Your task to perform on an android device: Show me productivity apps on the Play Store Image 0: 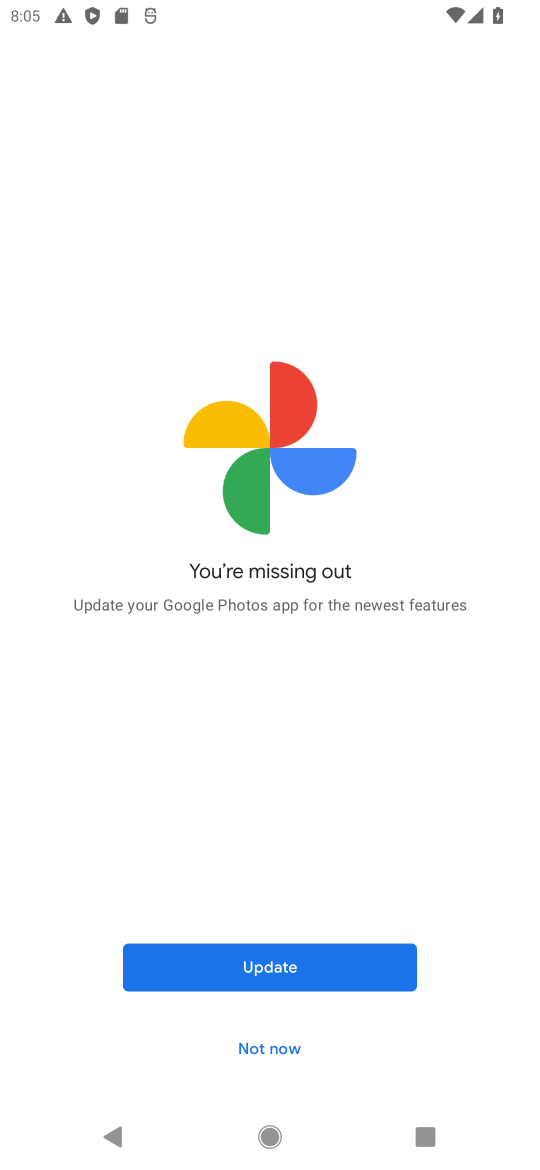
Step 0: press home button
Your task to perform on an android device: Show me productivity apps on the Play Store Image 1: 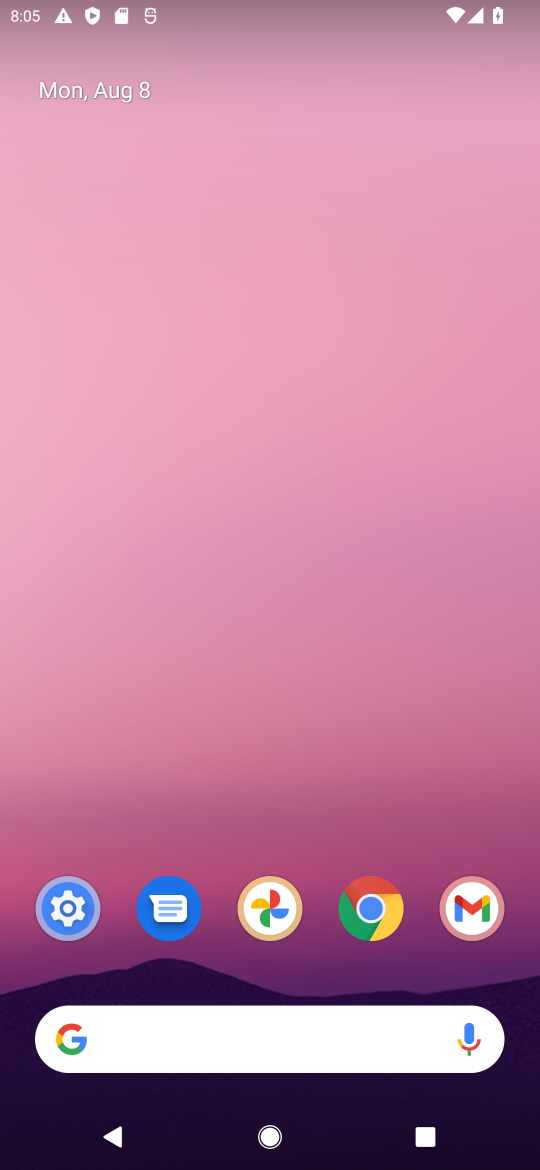
Step 1: drag from (321, 828) to (275, 148)
Your task to perform on an android device: Show me productivity apps on the Play Store Image 2: 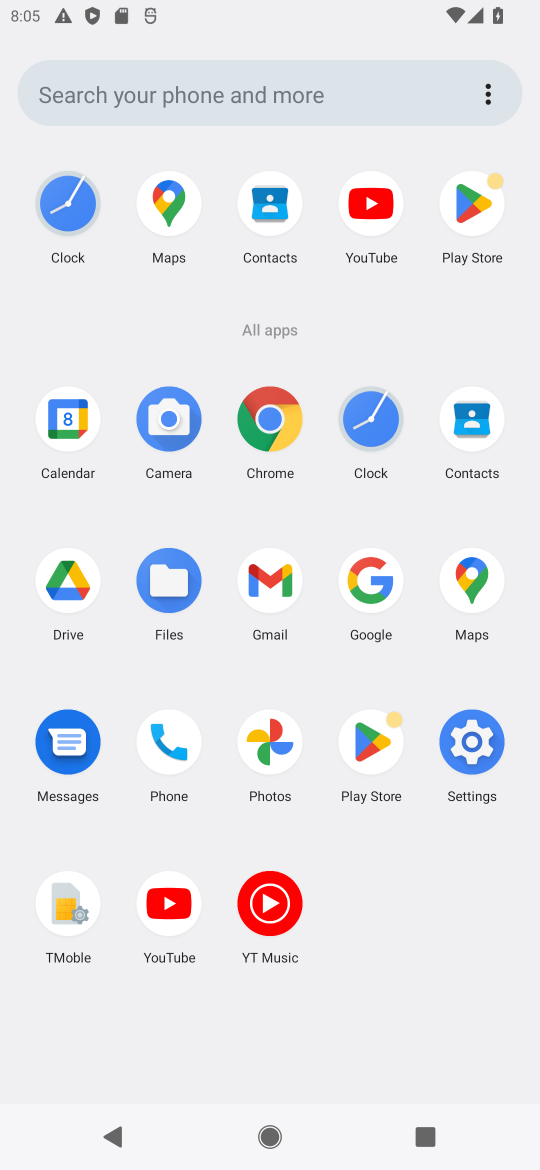
Step 2: click (373, 747)
Your task to perform on an android device: Show me productivity apps on the Play Store Image 3: 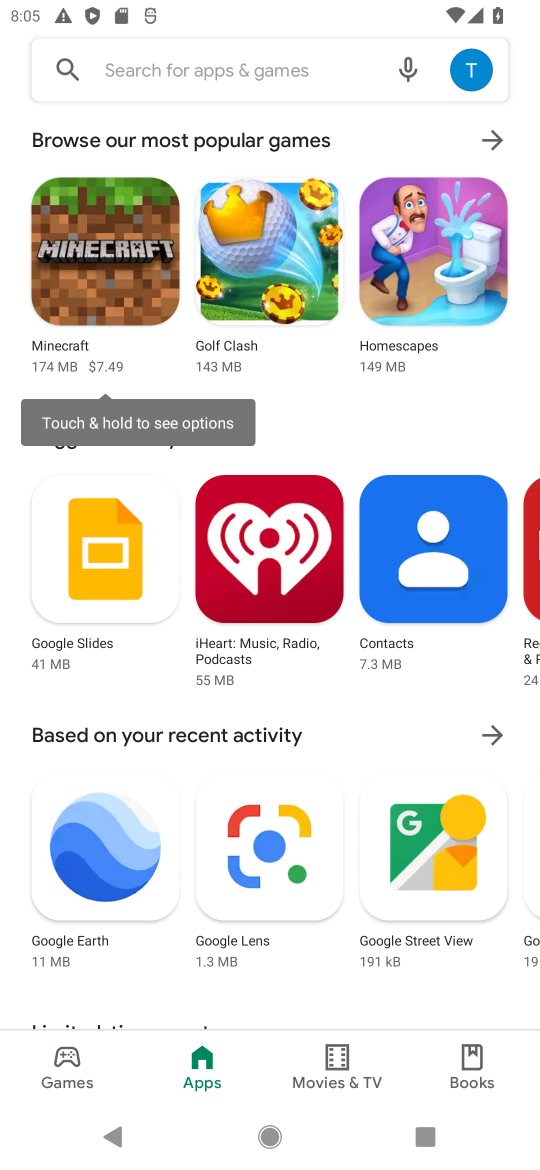
Step 3: drag from (375, 125) to (357, 1059)
Your task to perform on an android device: Show me productivity apps on the Play Store Image 4: 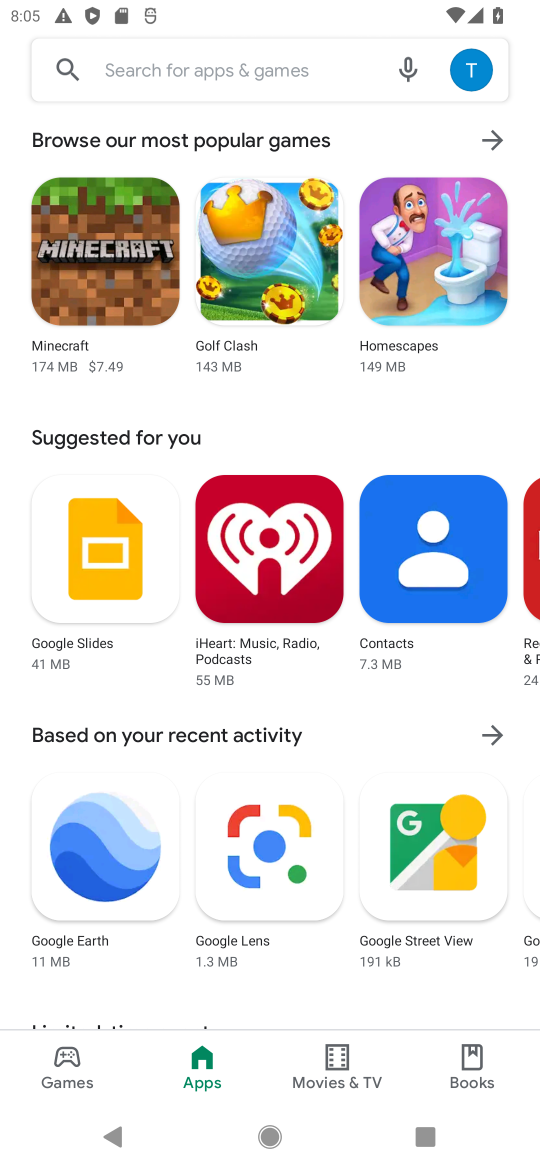
Step 4: drag from (242, 822) to (307, 144)
Your task to perform on an android device: Show me productivity apps on the Play Store Image 5: 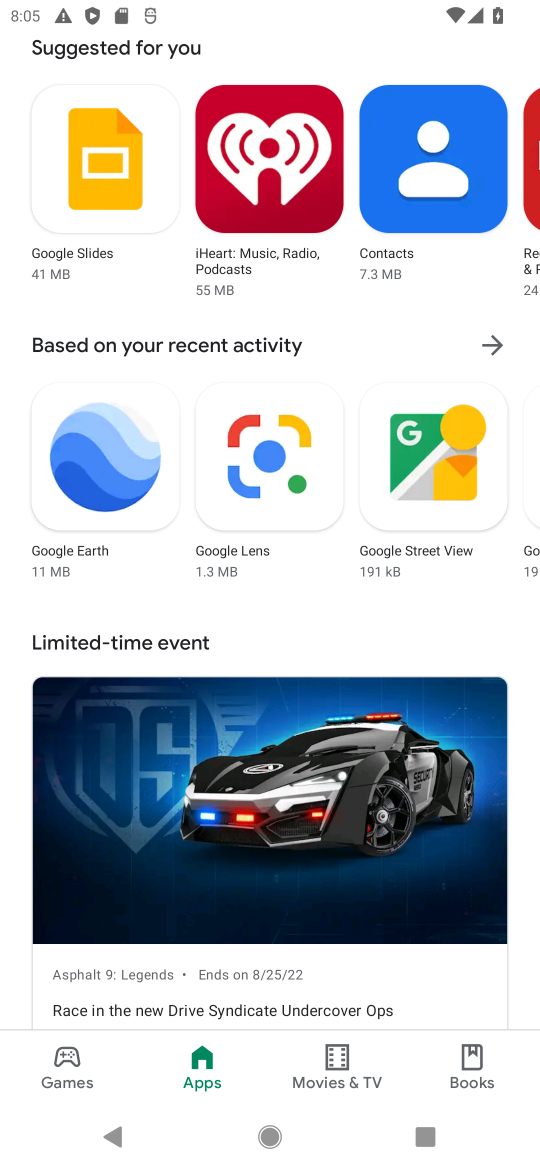
Step 5: drag from (319, 678) to (291, 222)
Your task to perform on an android device: Show me productivity apps on the Play Store Image 6: 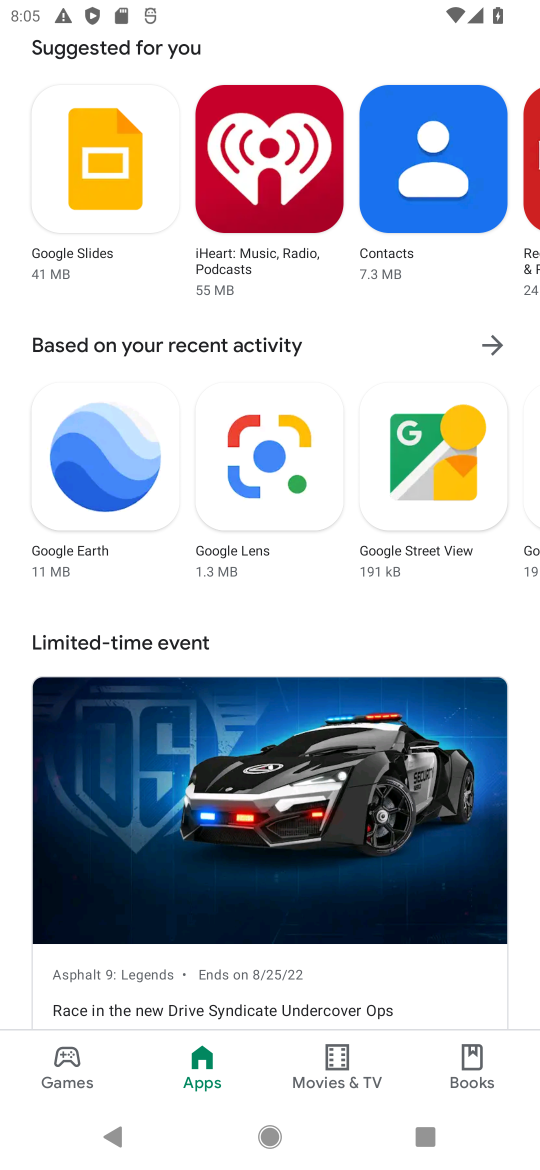
Step 6: drag from (222, 993) to (231, 456)
Your task to perform on an android device: Show me productivity apps on the Play Store Image 7: 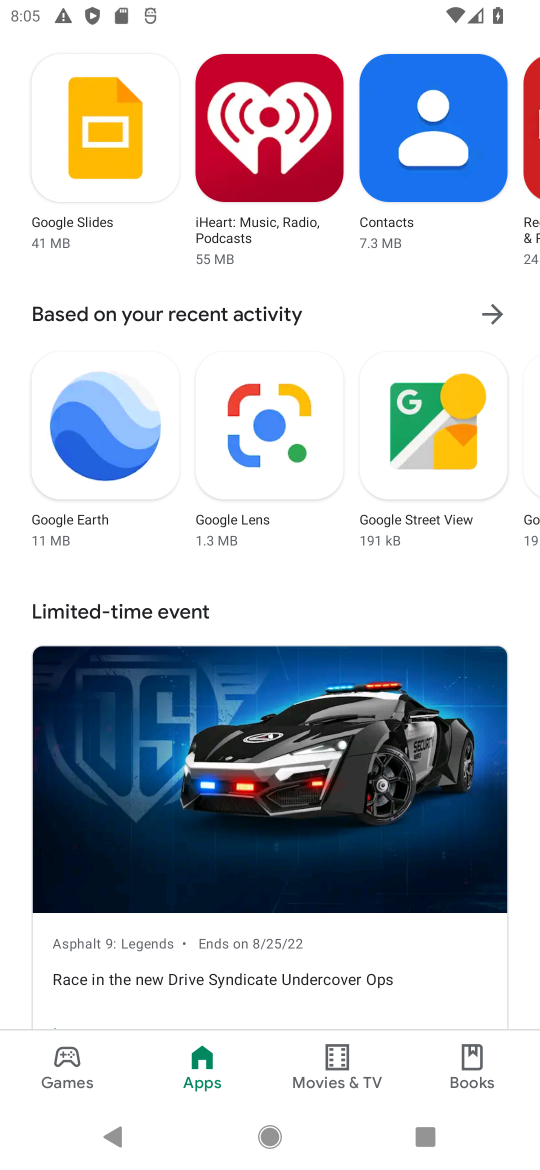
Step 7: drag from (185, 93) to (151, 963)
Your task to perform on an android device: Show me productivity apps on the Play Store Image 8: 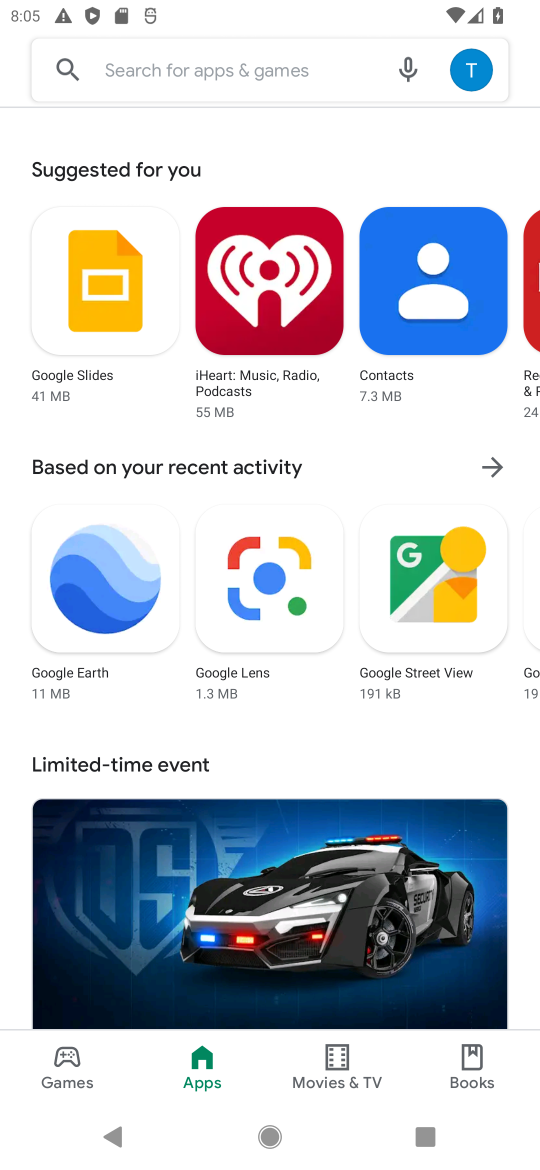
Step 8: drag from (361, 147) to (229, 1098)
Your task to perform on an android device: Show me productivity apps on the Play Store Image 9: 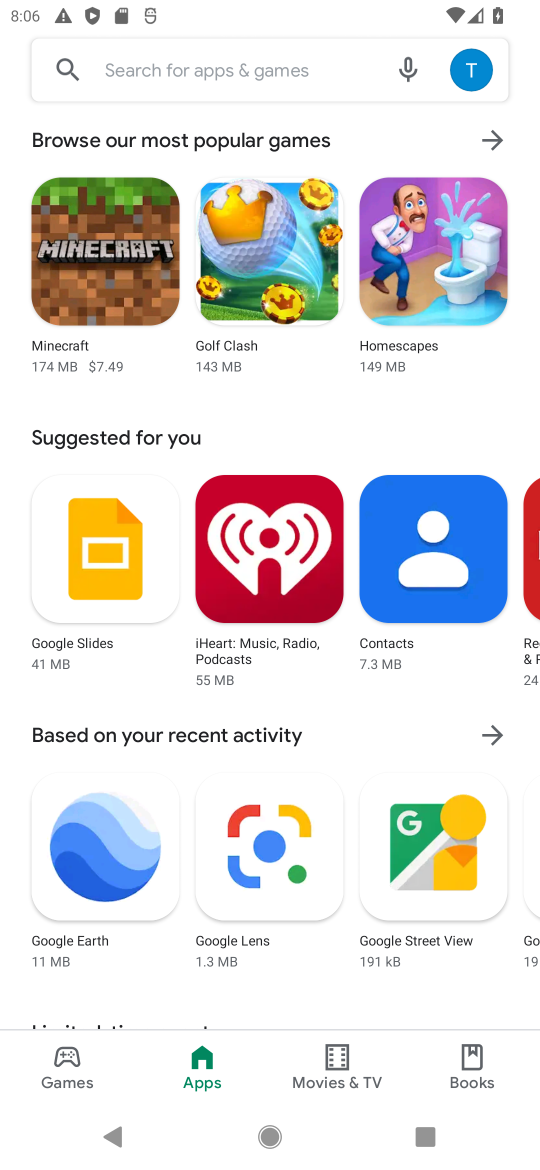
Step 9: drag from (255, 985) to (229, 171)
Your task to perform on an android device: Show me productivity apps on the Play Store Image 10: 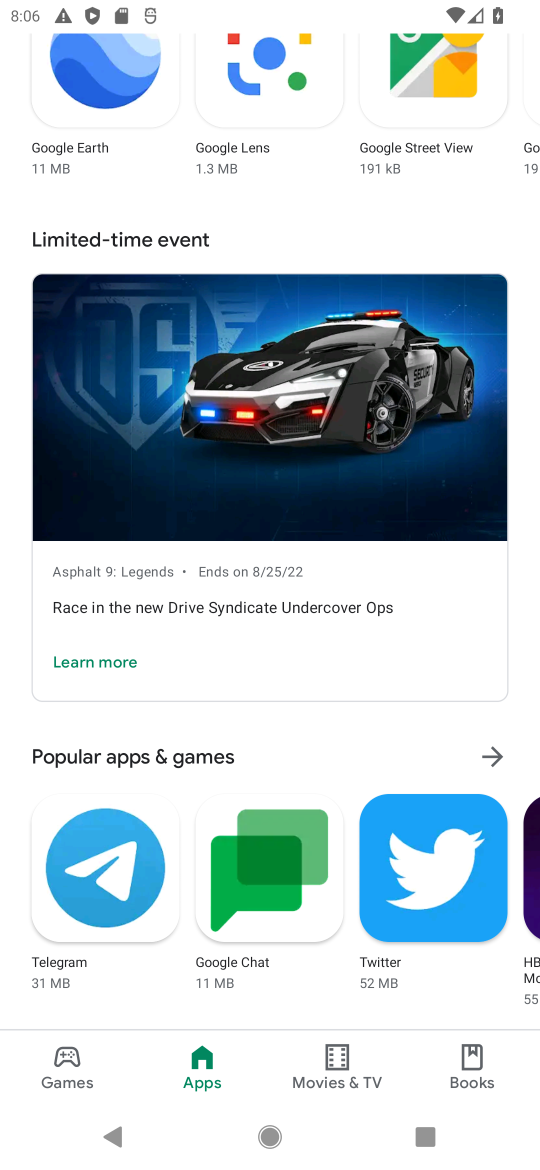
Step 10: drag from (169, 69) to (153, 1156)
Your task to perform on an android device: Show me productivity apps on the Play Store Image 11: 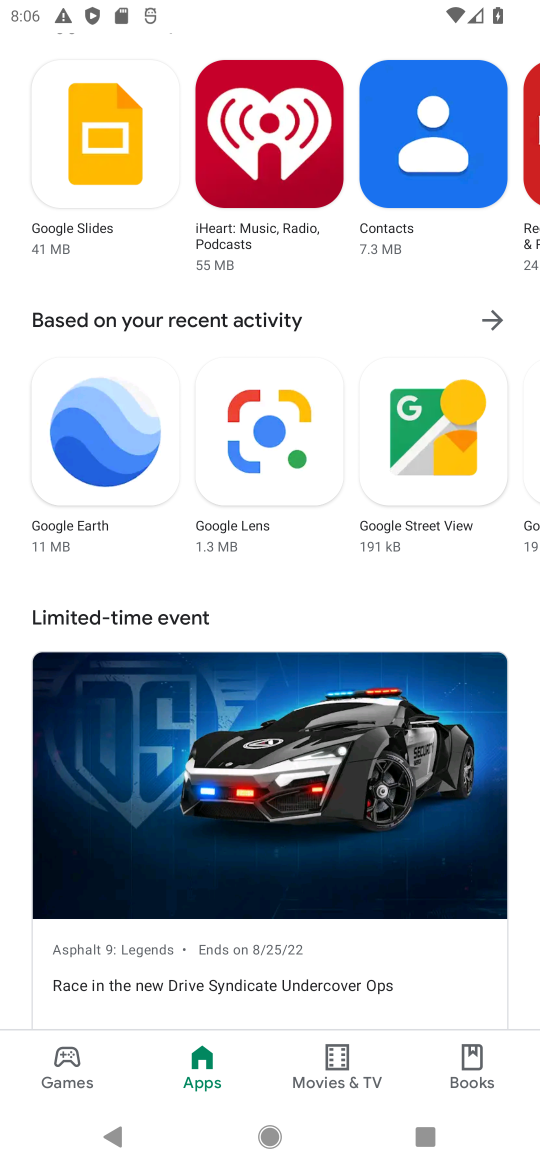
Step 11: drag from (407, 43) to (391, 1075)
Your task to perform on an android device: Show me productivity apps on the Play Store Image 12: 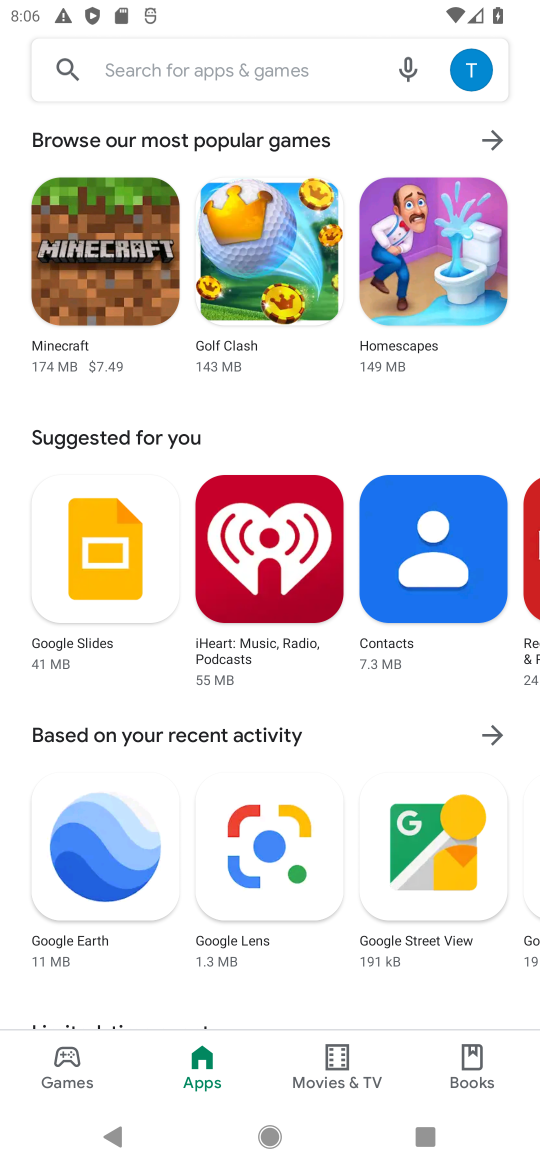
Step 12: drag from (153, 992) to (93, 56)
Your task to perform on an android device: Show me productivity apps on the Play Store Image 13: 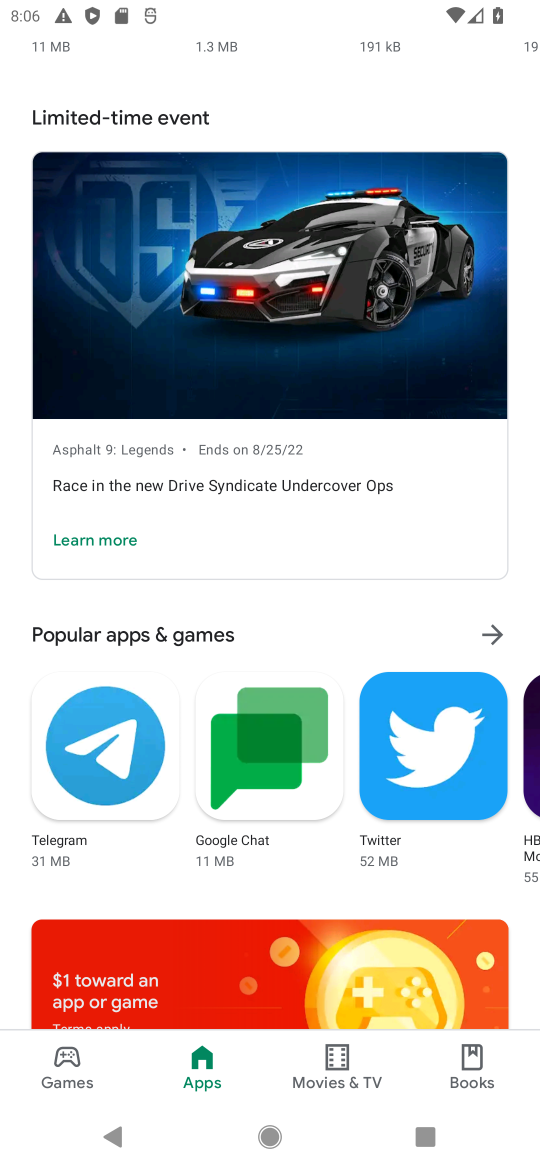
Step 13: drag from (129, 870) to (343, 6)
Your task to perform on an android device: Show me productivity apps on the Play Store Image 14: 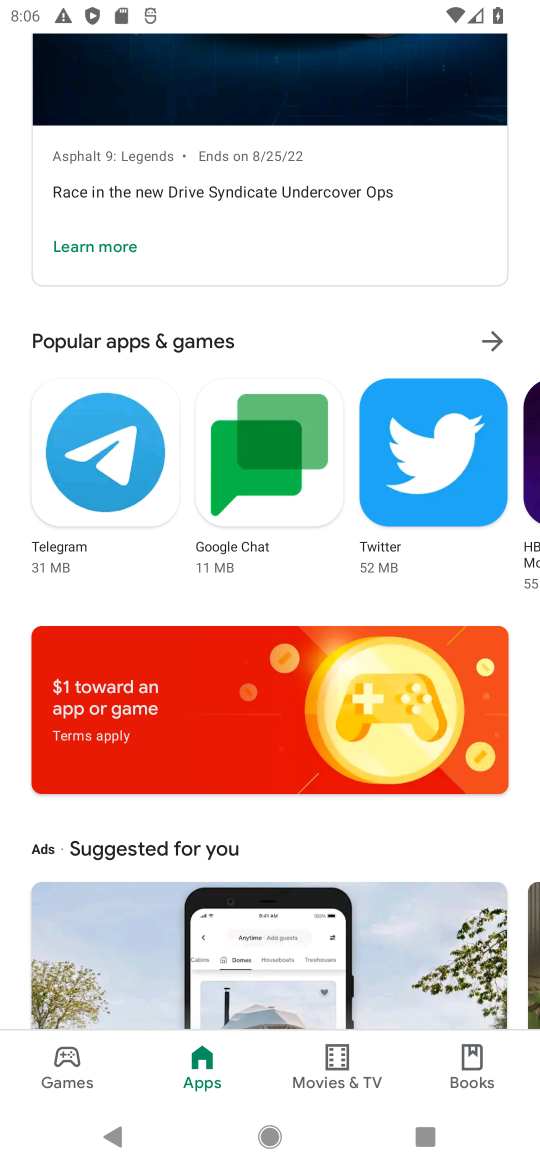
Step 14: drag from (186, 955) to (191, 255)
Your task to perform on an android device: Show me productivity apps on the Play Store Image 15: 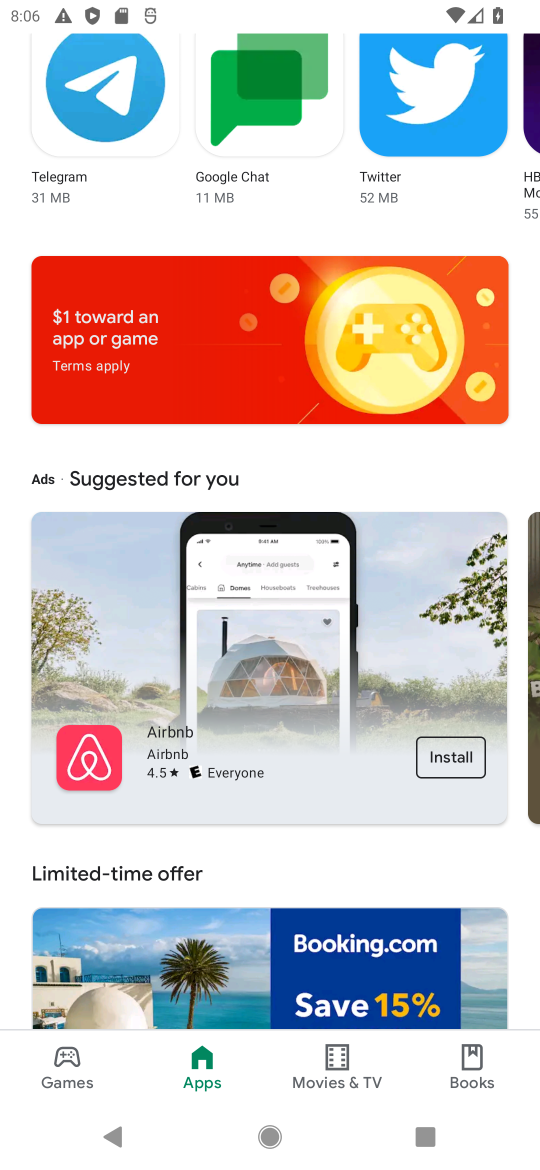
Step 15: drag from (207, 968) to (278, 29)
Your task to perform on an android device: Show me productivity apps on the Play Store Image 16: 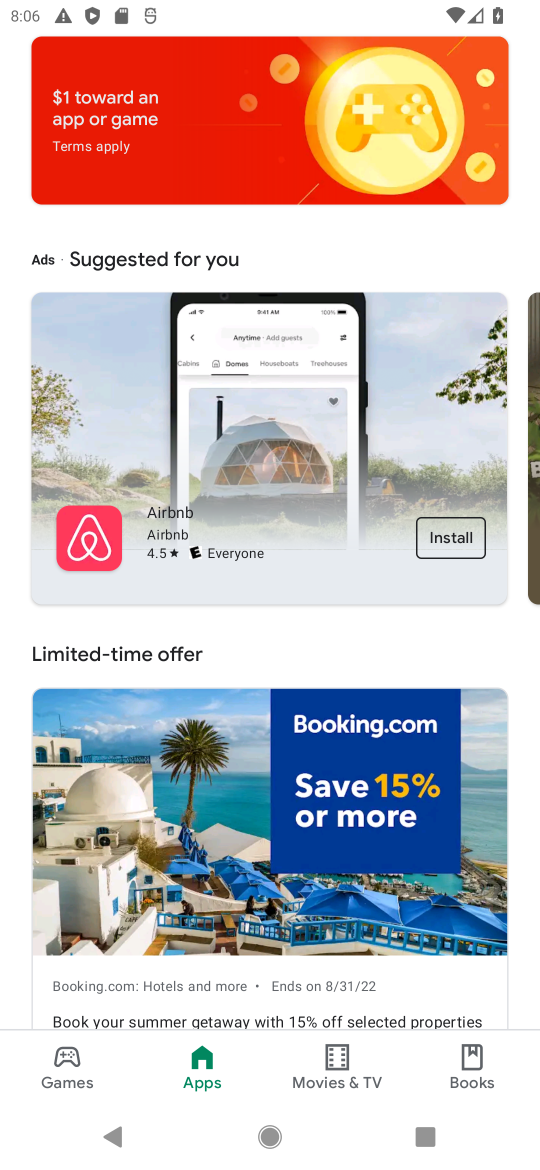
Step 16: drag from (170, 915) to (138, 233)
Your task to perform on an android device: Show me productivity apps on the Play Store Image 17: 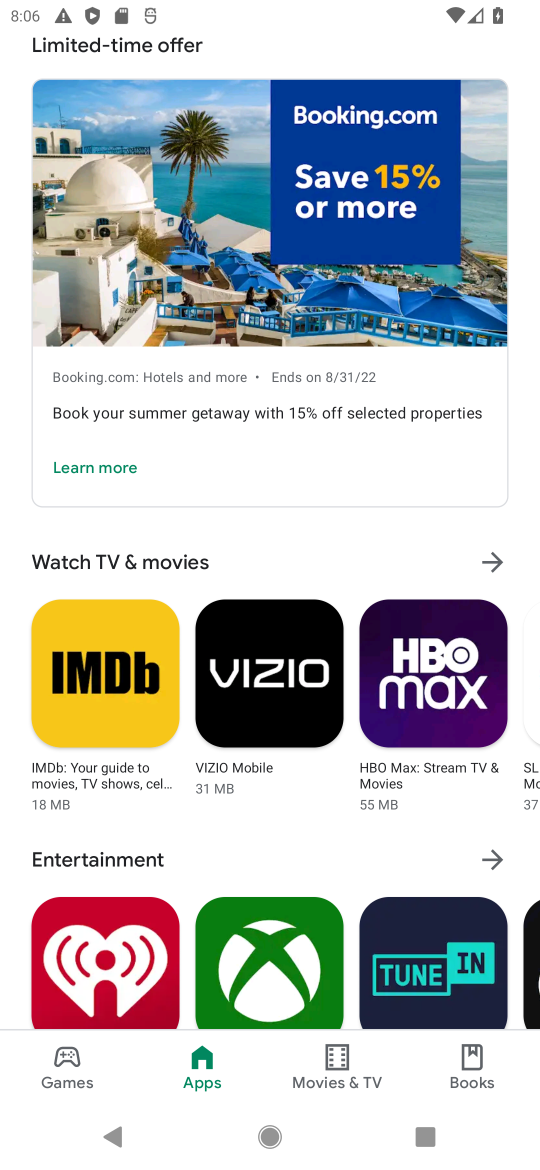
Step 17: drag from (291, 535) to (305, 146)
Your task to perform on an android device: Show me productivity apps on the Play Store Image 18: 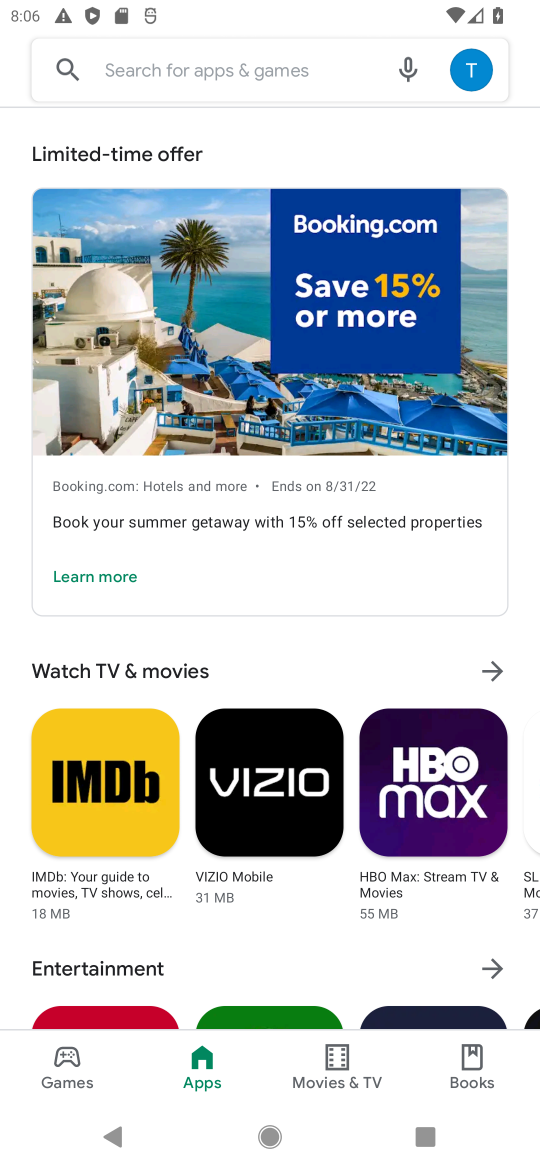
Step 18: click (237, 933)
Your task to perform on an android device: Show me productivity apps on the Play Store Image 19: 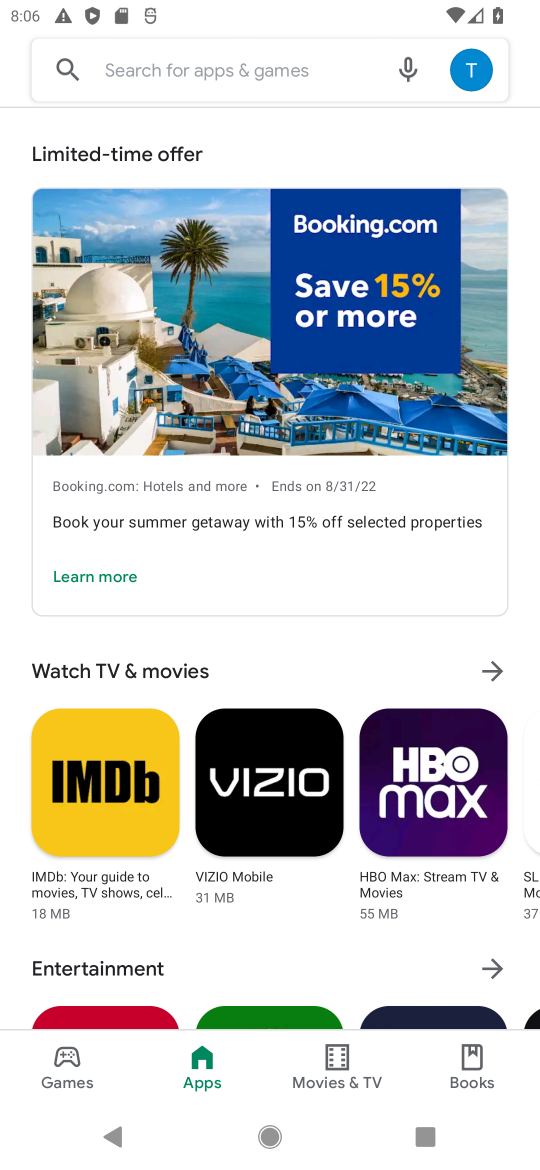
Step 19: drag from (237, 933) to (251, 431)
Your task to perform on an android device: Show me productivity apps on the Play Store Image 20: 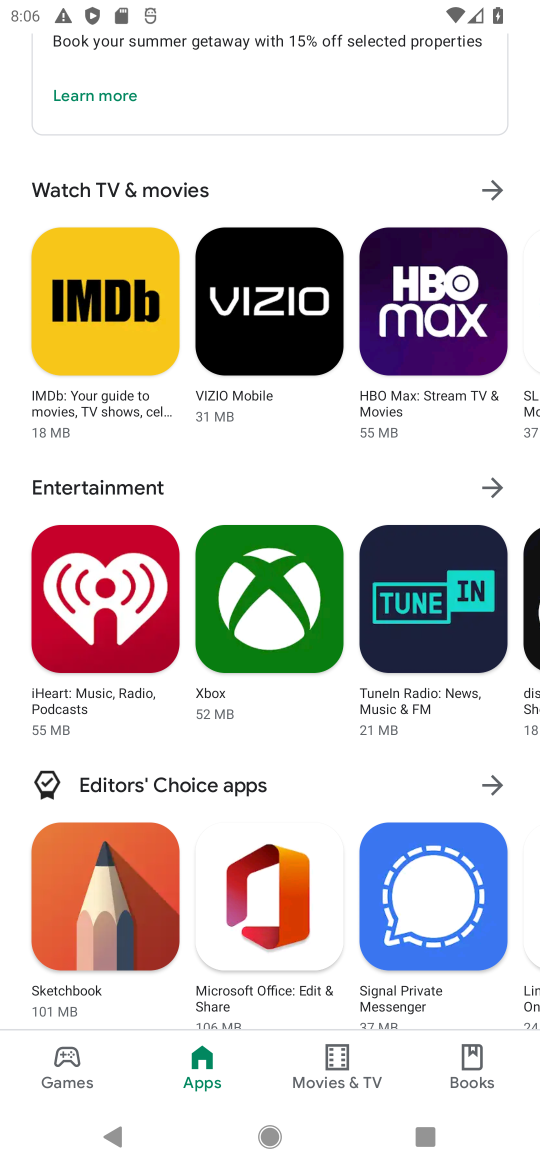
Step 20: drag from (175, 942) to (344, 7)
Your task to perform on an android device: Show me productivity apps on the Play Store Image 21: 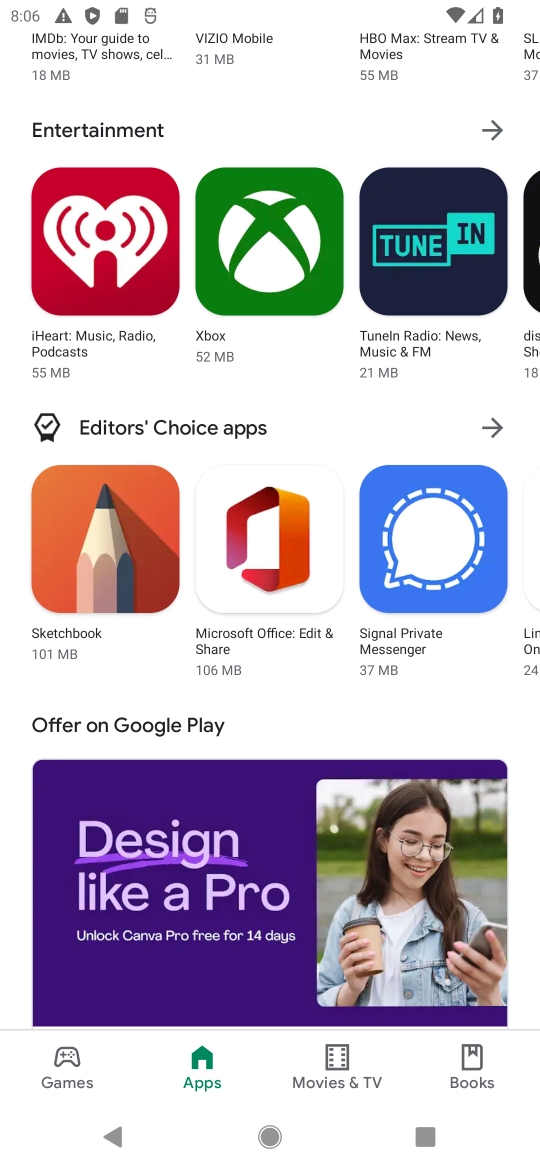
Step 21: drag from (200, 931) to (184, 416)
Your task to perform on an android device: Show me productivity apps on the Play Store Image 22: 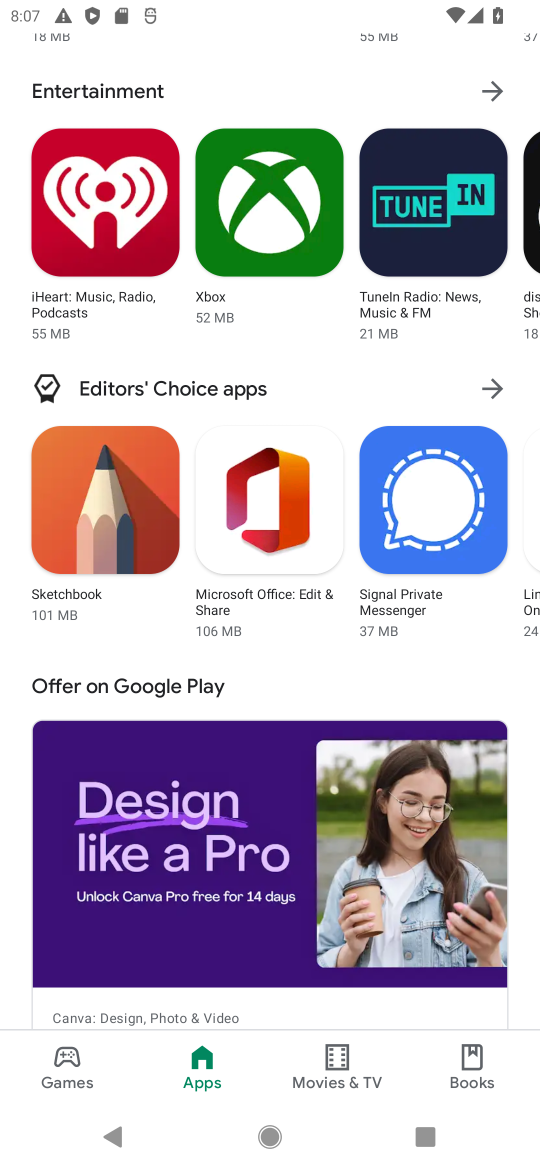
Step 22: drag from (181, 1024) to (280, 107)
Your task to perform on an android device: Show me productivity apps on the Play Store Image 23: 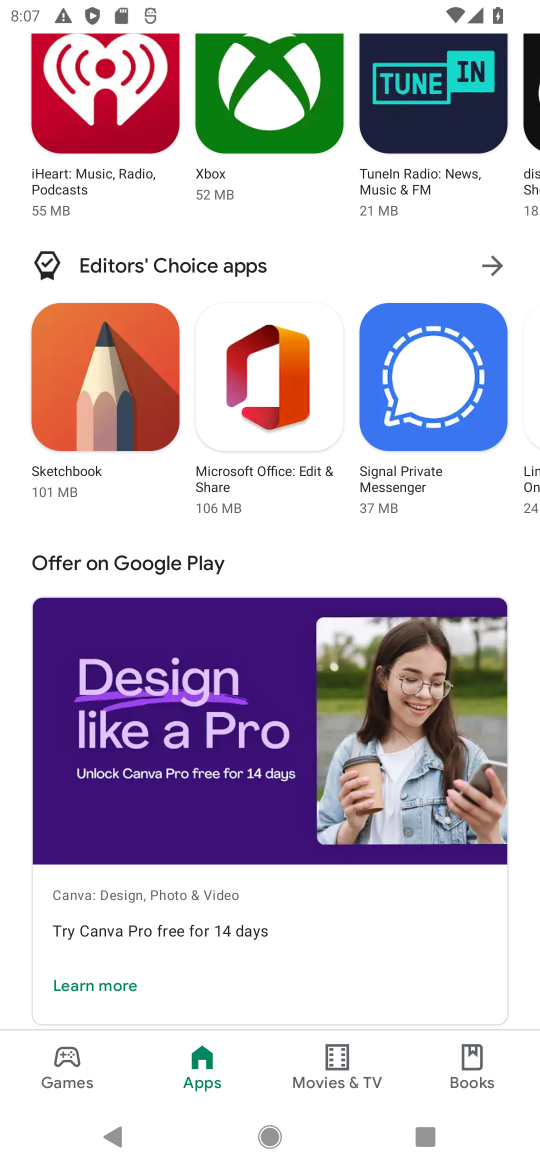
Step 23: drag from (175, 962) to (242, 46)
Your task to perform on an android device: Show me productivity apps on the Play Store Image 24: 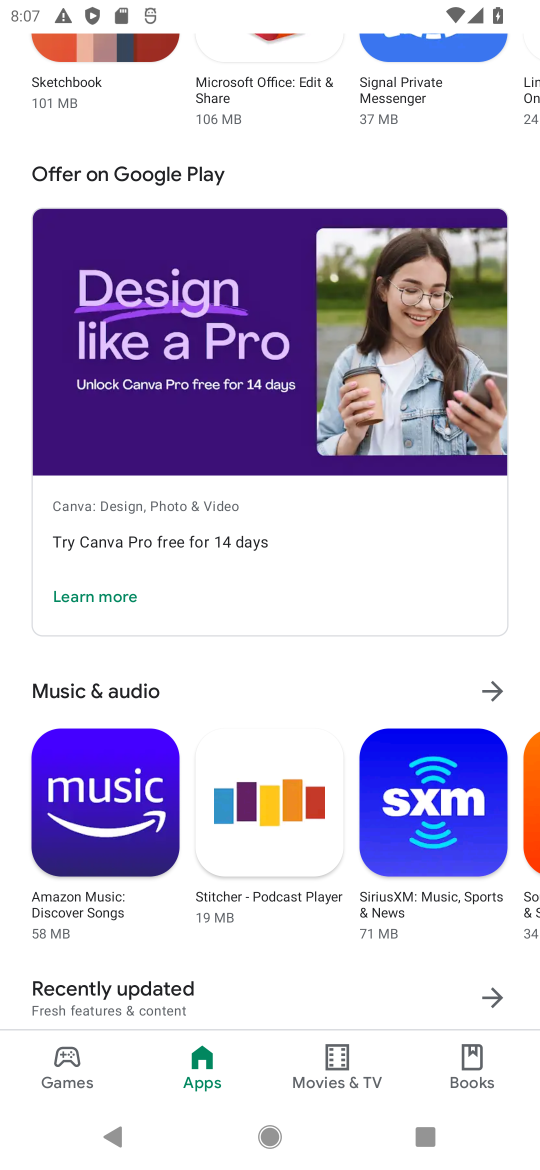
Step 24: drag from (206, 991) to (315, 174)
Your task to perform on an android device: Show me productivity apps on the Play Store Image 25: 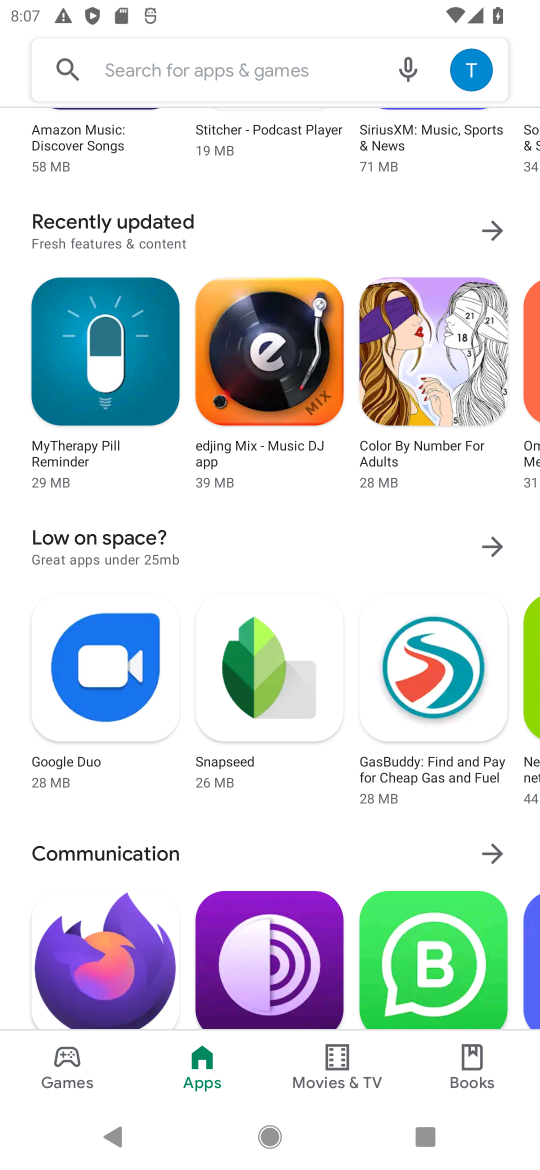
Step 25: drag from (233, 1005) to (251, 244)
Your task to perform on an android device: Show me productivity apps on the Play Store Image 26: 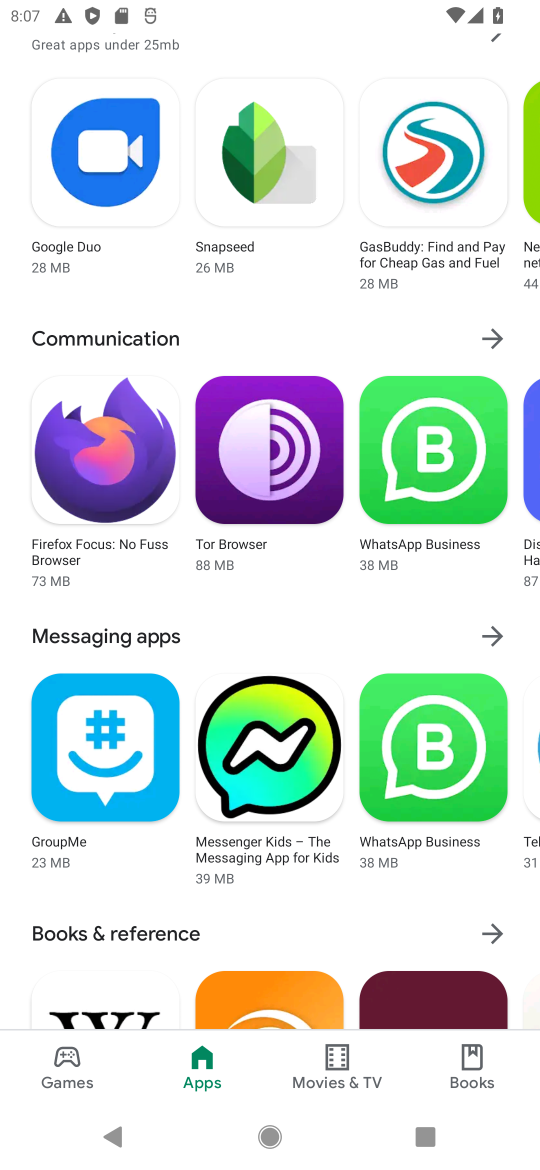
Step 26: drag from (217, 921) to (150, 84)
Your task to perform on an android device: Show me productivity apps on the Play Store Image 27: 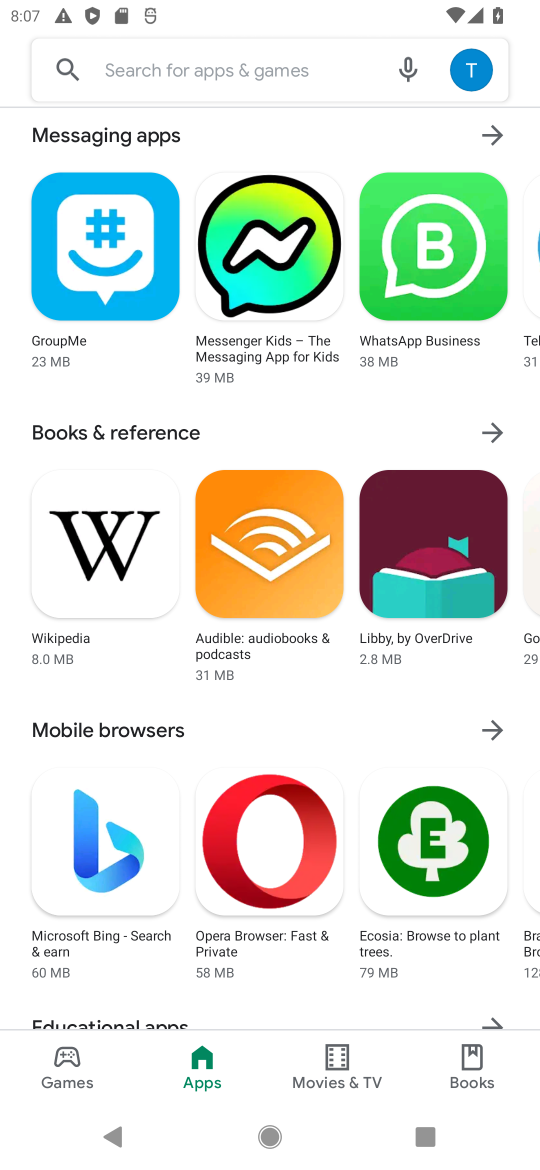
Step 27: drag from (165, 938) to (229, 332)
Your task to perform on an android device: Show me productivity apps on the Play Store Image 28: 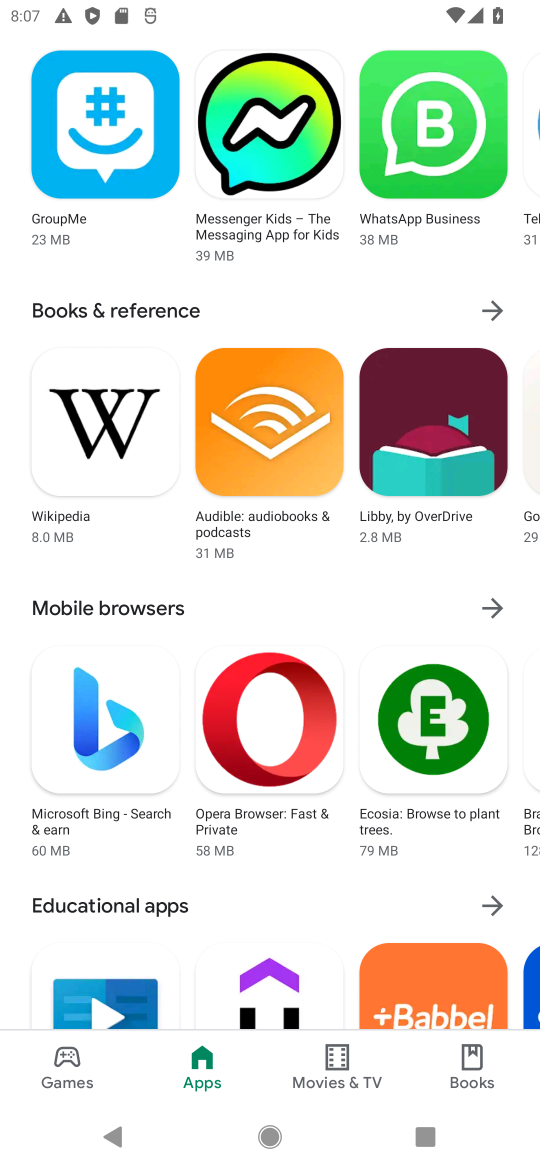
Step 28: drag from (240, 908) to (271, 253)
Your task to perform on an android device: Show me productivity apps on the Play Store Image 29: 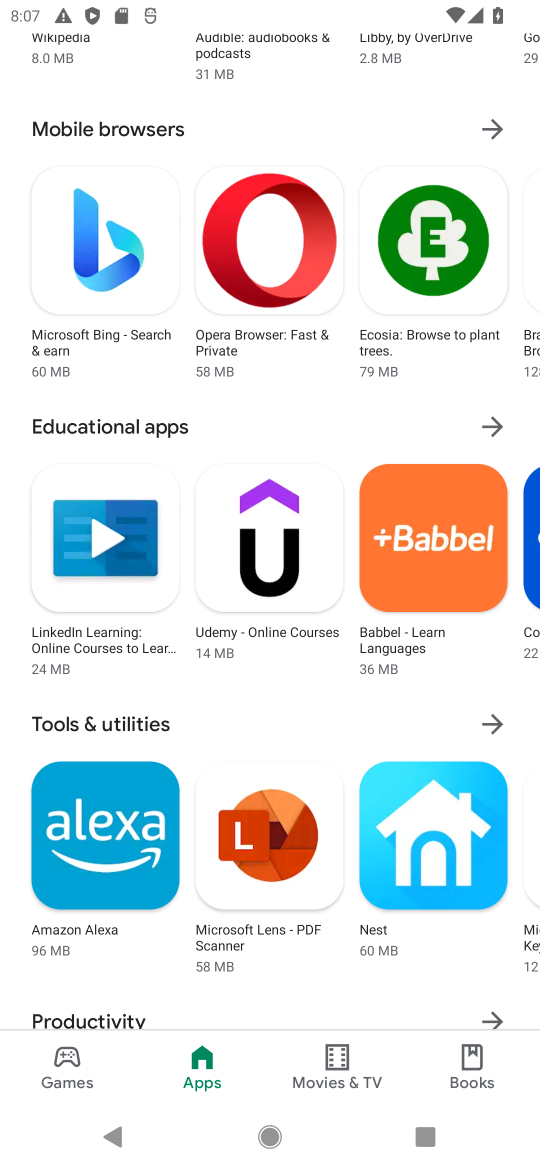
Step 29: drag from (158, 894) to (251, 269)
Your task to perform on an android device: Show me productivity apps on the Play Store Image 30: 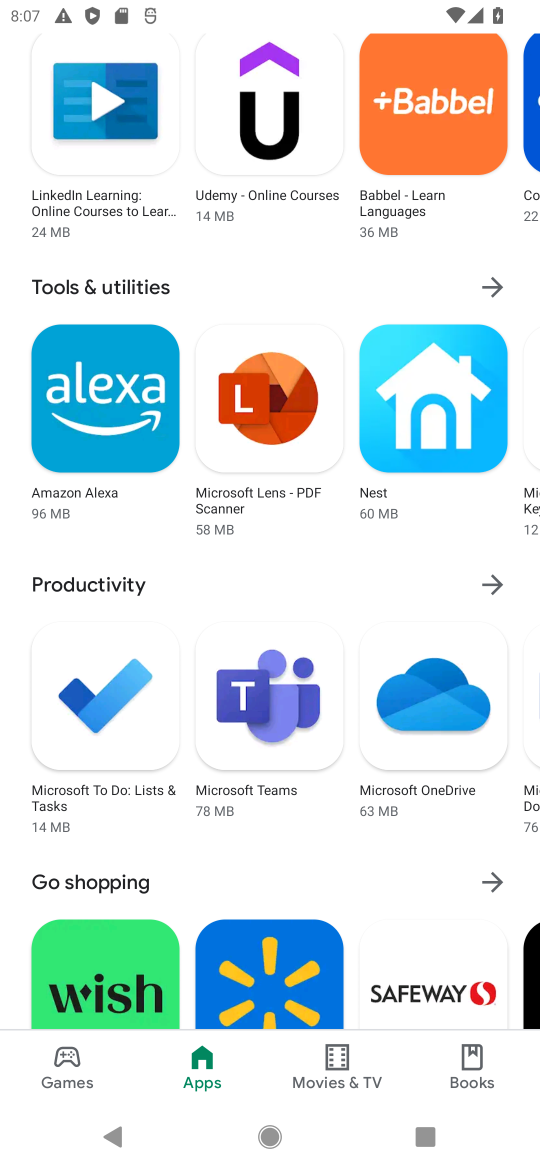
Step 30: drag from (287, 130) to (258, 979)
Your task to perform on an android device: Show me productivity apps on the Play Store Image 31: 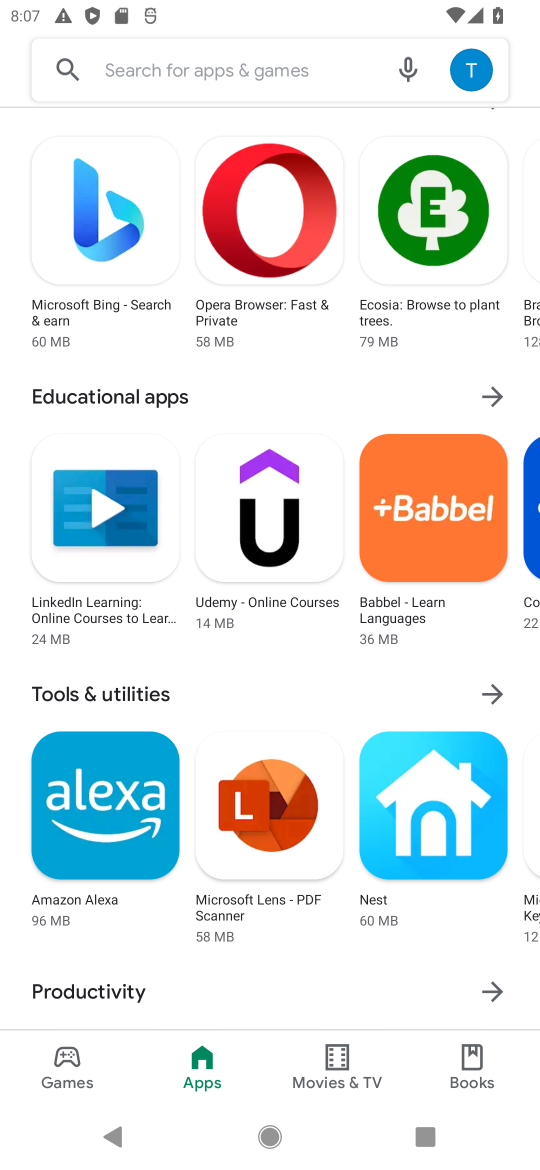
Step 31: drag from (245, 101) to (219, 1095)
Your task to perform on an android device: Show me productivity apps on the Play Store Image 32: 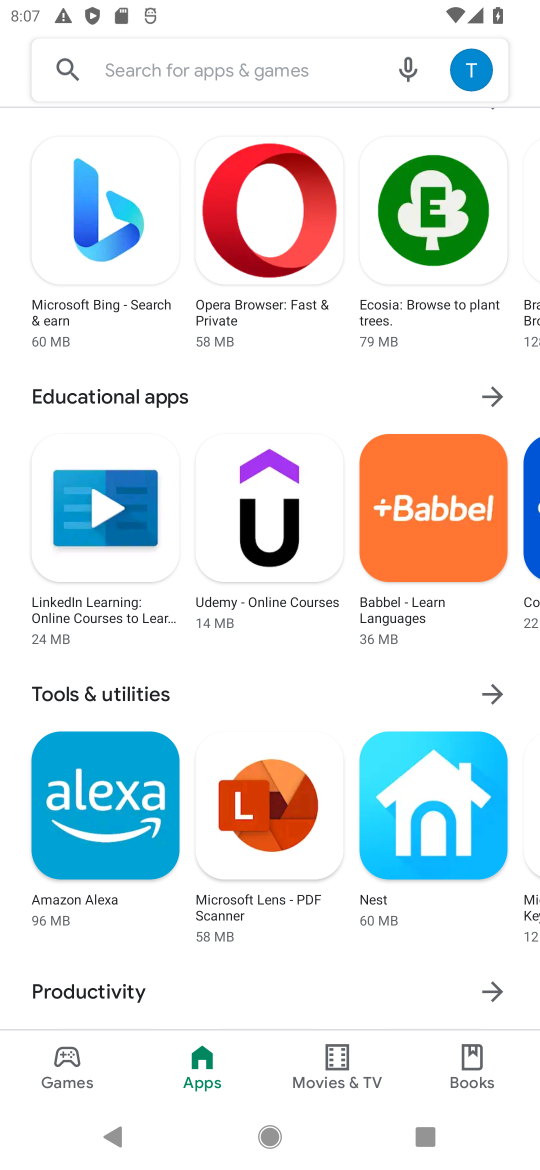
Step 32: drag from (182, 151) to (186, 1022)
Your task to perform on an android device: Show me productivity apps on the Play Store Image 33: 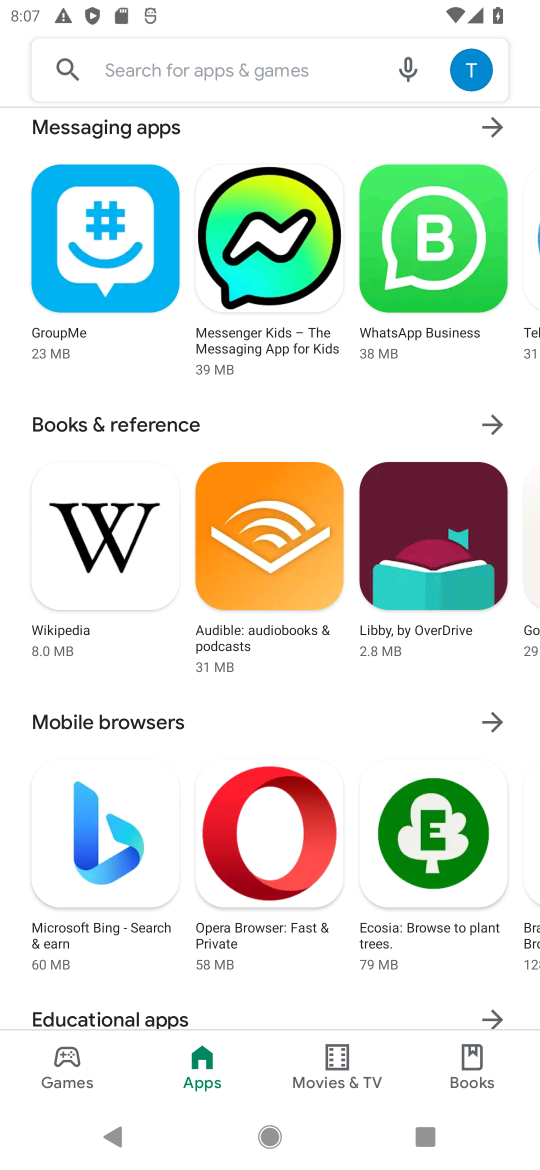
Step 33: drag from (186, 1022) to (340, 138)
Your task to perform on an android device: Show me productivity apps on the Play Store Image 34: 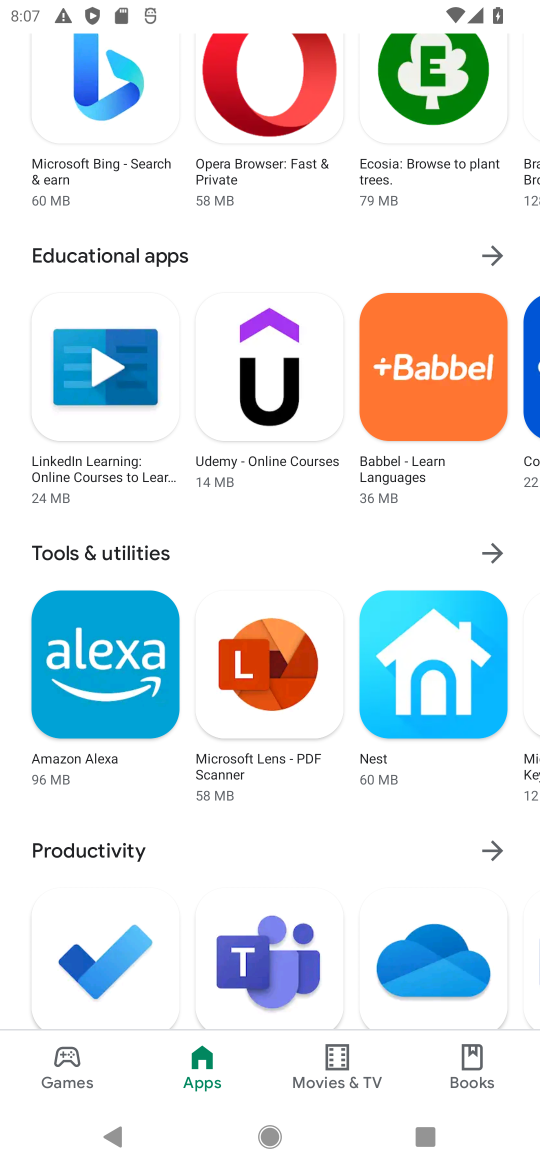
Step 34: click (230, 865)
Your task to perform on an android device: Show me productivity apps on the Play Store Image 35: 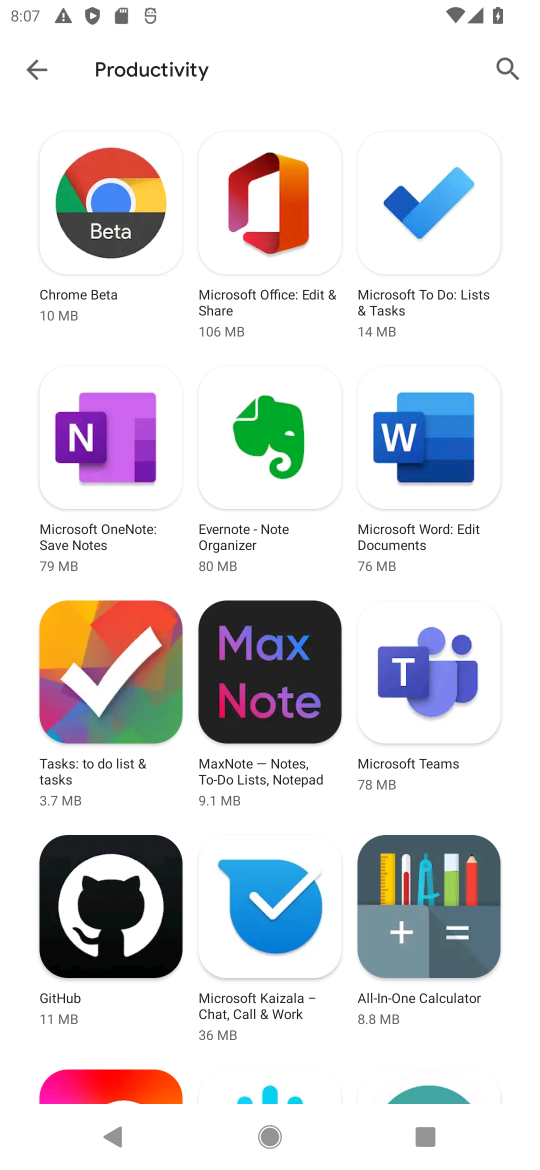
Step 35: task complete